Your task to perform on an android device: Open a new window in the chrome app Image 0: 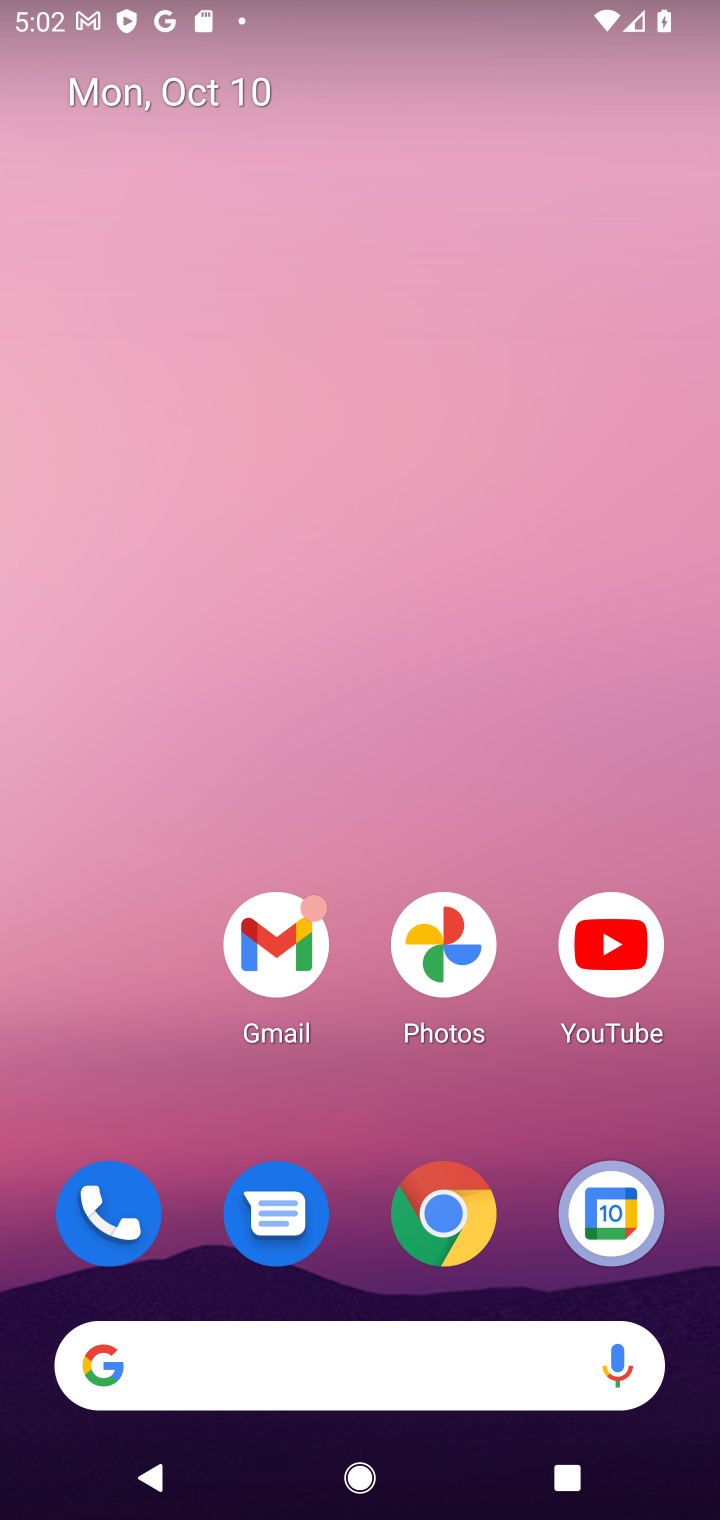
Step 0: click (454, 1226)
Your task to perform on an android device: Open a new window in the chrome app Image 1: 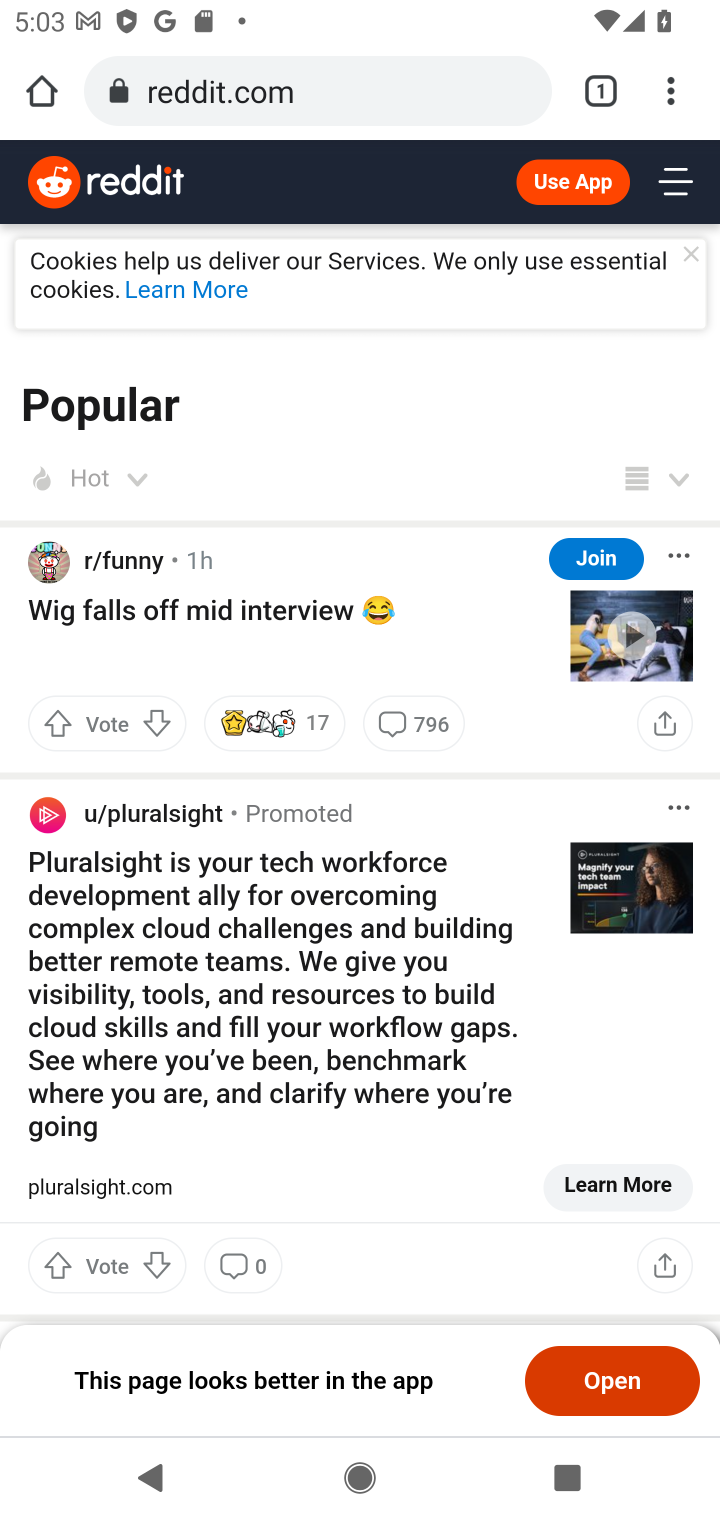
Step 1: click (597, 73)
Your task to perform on an android device: Open a new window in the chrome app Image 2: 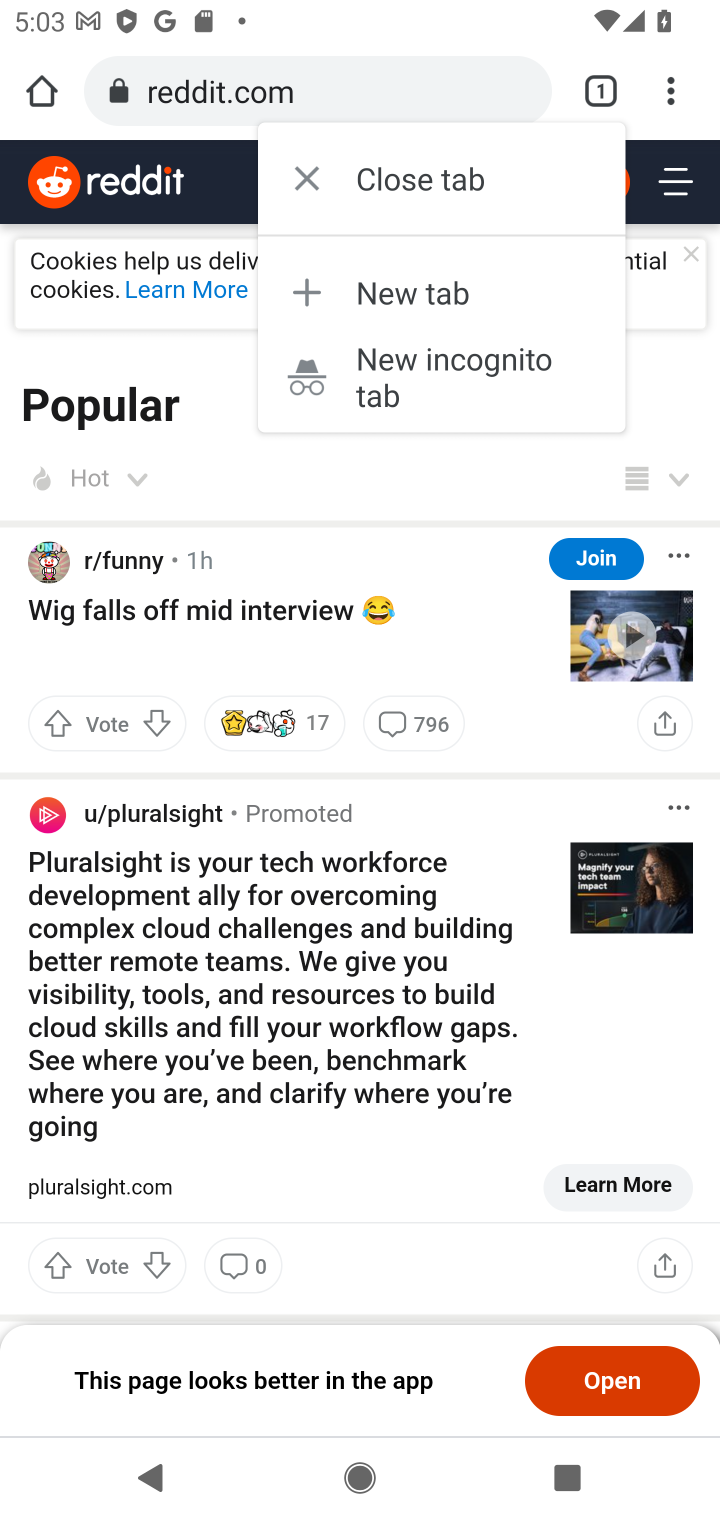
Step 2: click (479, 295)
Your task to perform on an android device: Open a new window in the chrome app Image 3: 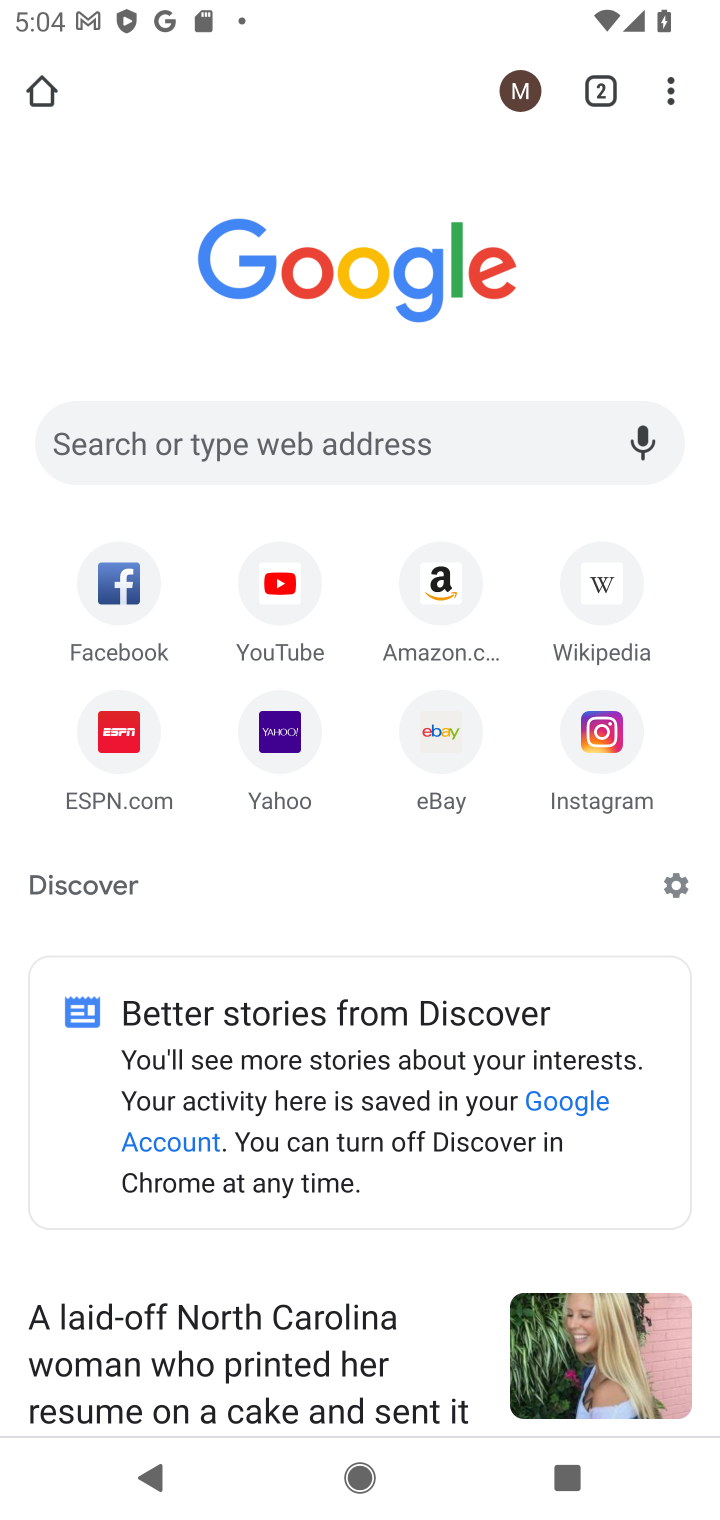
Step 3: click (260, 423)
Your task to perform on an android device: Open a new window in the chrome app Image 4: 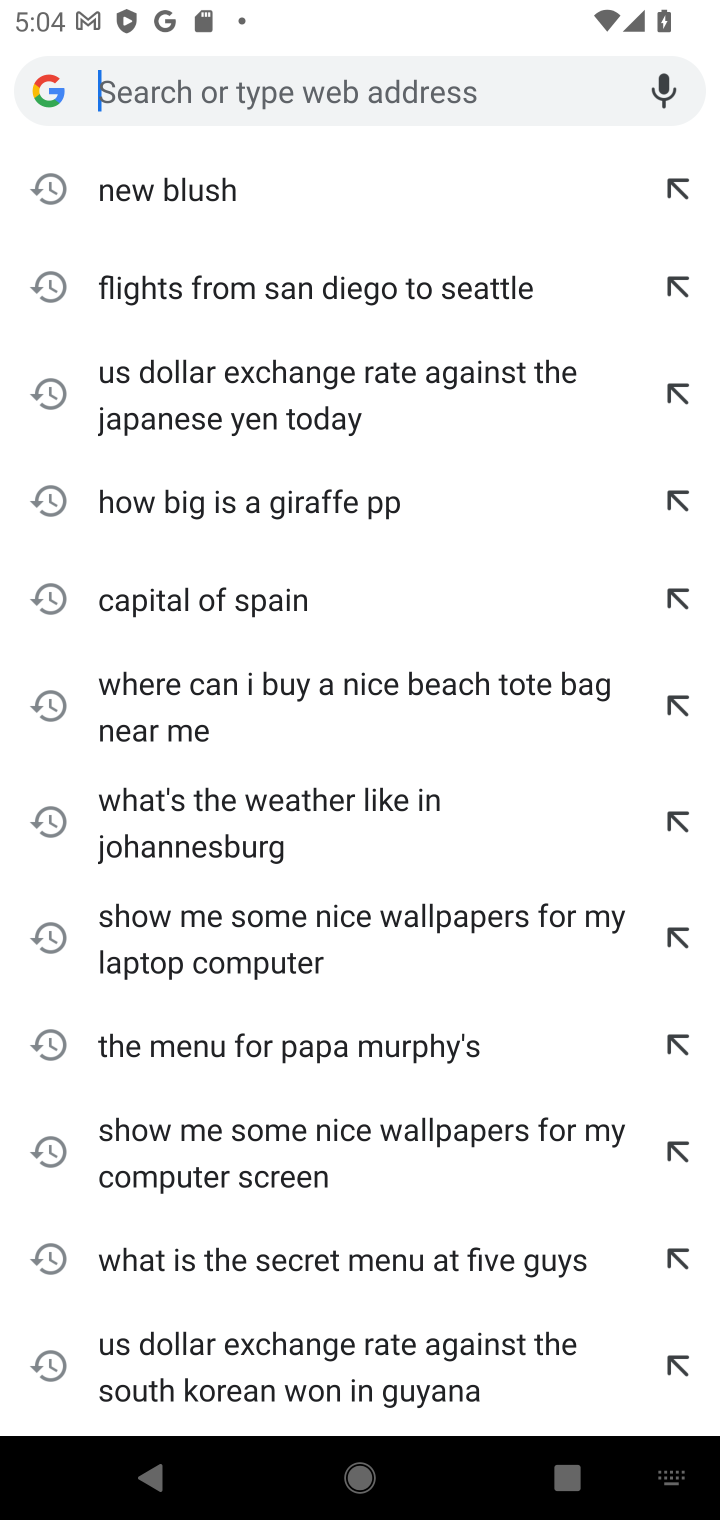
Step 4: task complete